Your task to perform on an android device: Toggle the flashlight Image 0: 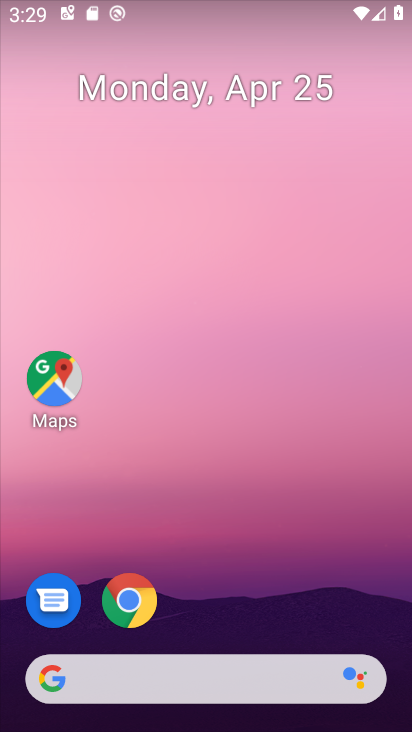
Step 0: drag from (288, 540) to (258, 11)
Your task to perform on an android device: Toggle the flashlight Image 1: 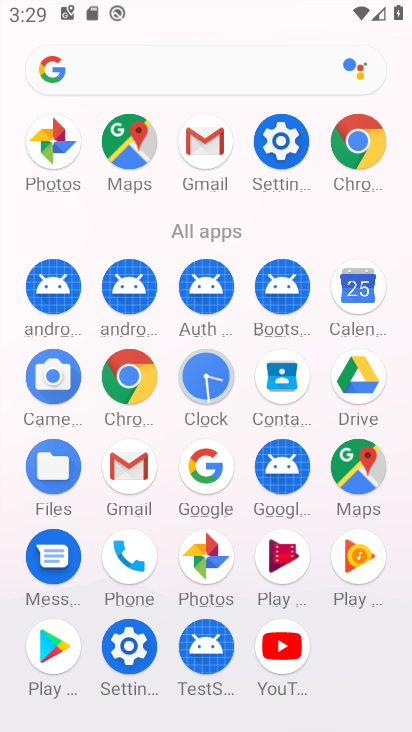
Step 1: click (283, 139)
Your task to perform on an android device: Toggle the flashlight Image 2: 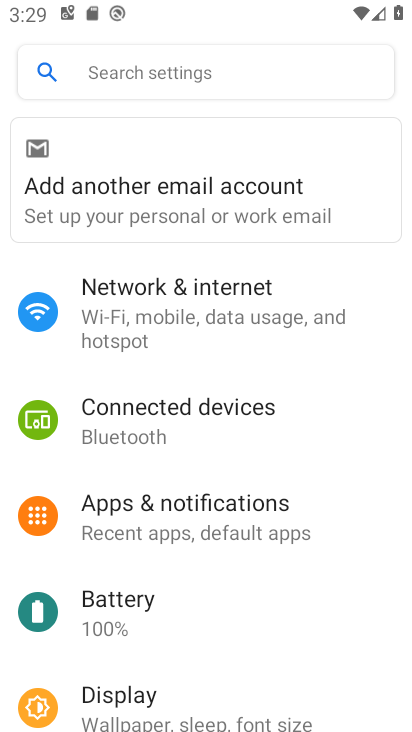
Step 2: click (226, 302)
Your task to perform on an android device: Toggle the flashlight Image 3: 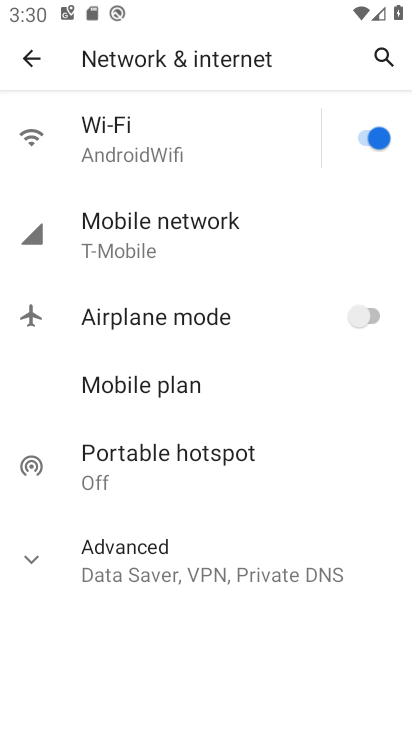
Step 3: drag from (227, 484) to (239, 177)
Your task to perform on an android device: Toggle the flashlight Image 4: 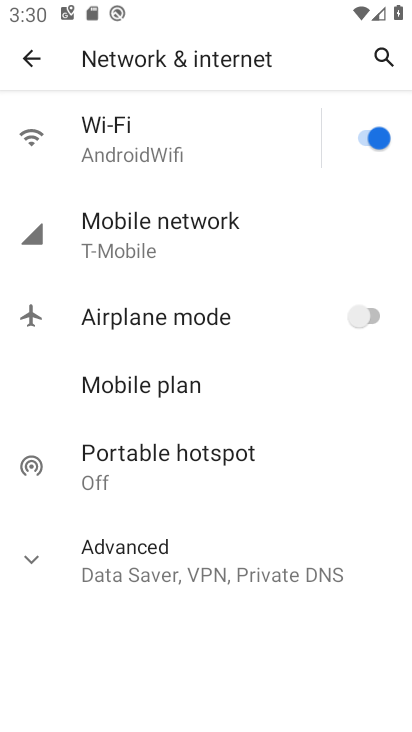
Step 4: click (15, 66)
Your task to perform on an android device: Toggle the flashlight Image 5: 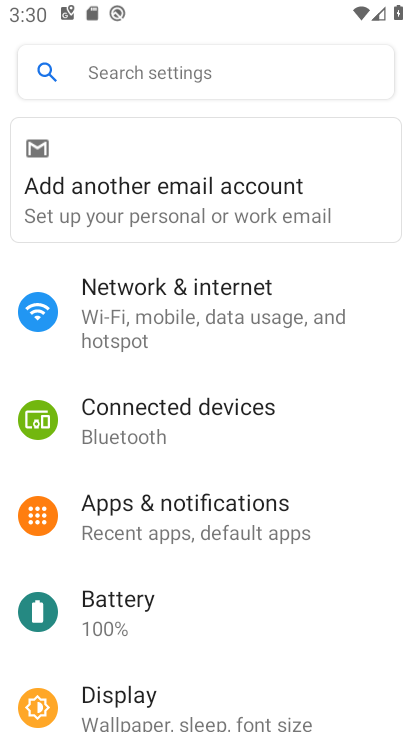
Step 5: drag from (235, 542) to (287, 286)
Your task to perform on an android device: Toggle the flashlight Image 6: 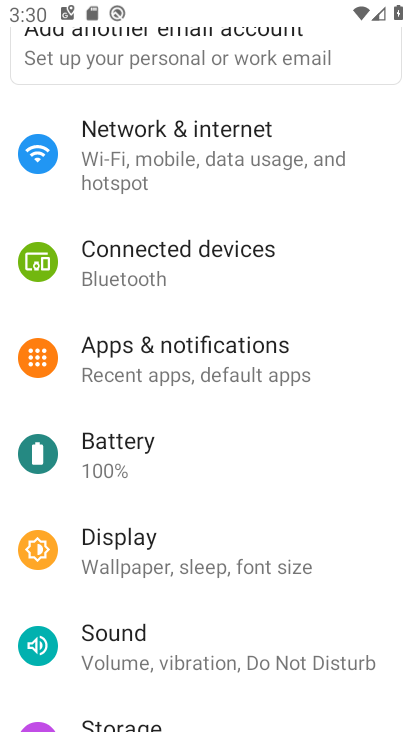
Step 6: click (213, 360)
Your task to perform on an android device: Toggle the flashlight Image 7: 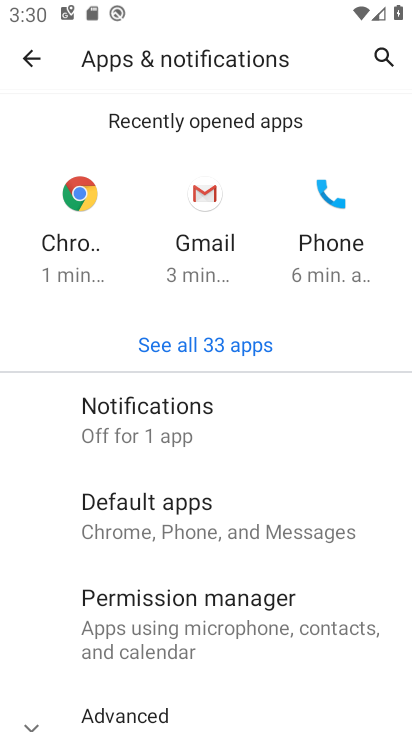
Step 7: task complete